Your task to perform on an android device: Open Google Chrome and click the shortcut for Amazon.com Image 0: 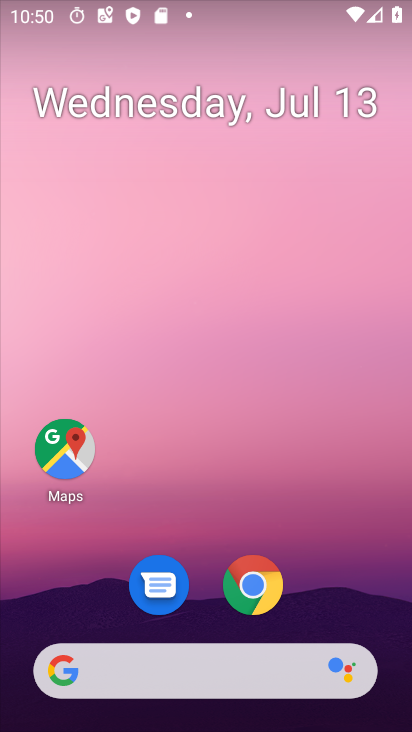
Step 0: drag from (261, 498) to (299, 93)
Your task to perform on an android device: Open Google Chrome and click the shortcut for Amazon.com Image 1: 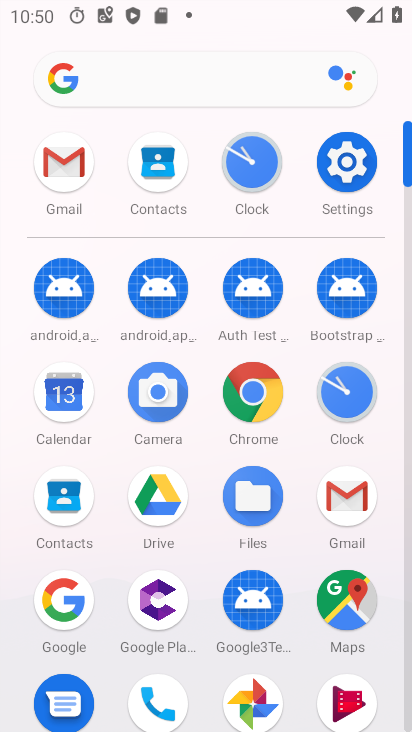
Step 1: click (245, 408)
Your task to perform on an android device: Open Google Chrome and click the shortcut for Amazon.com Image 2: 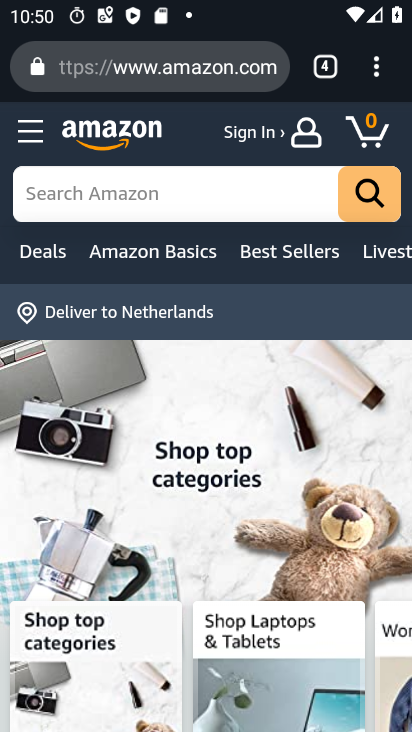
Step 2: click (377, 78)
Your task to perform on an android device: Open Google Chrome and click the shortcut for Amazon.com Image 3: 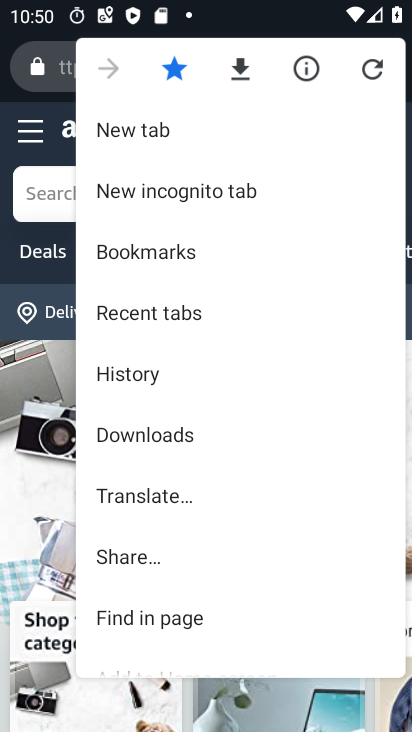
Step 3: click (212, 122)
Your task to perform on an android device: Open Google Chrome and click the shortcut for Amazon.com Image 4: 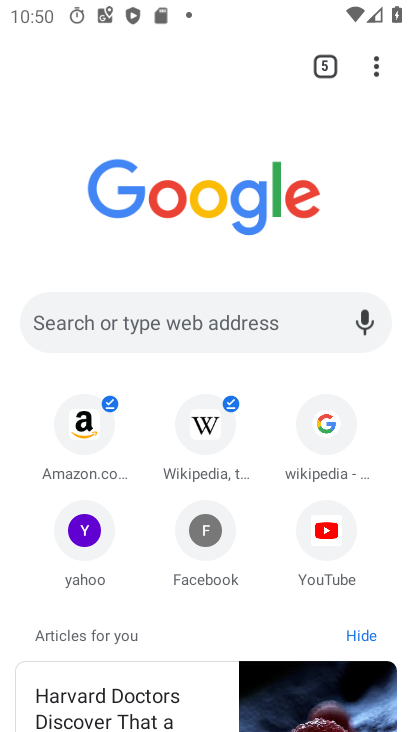
Step 4: click (90, 424)
Your task to perform on an android device: Open Google Chrome and click the shortcut for Amazon.com Image 5: 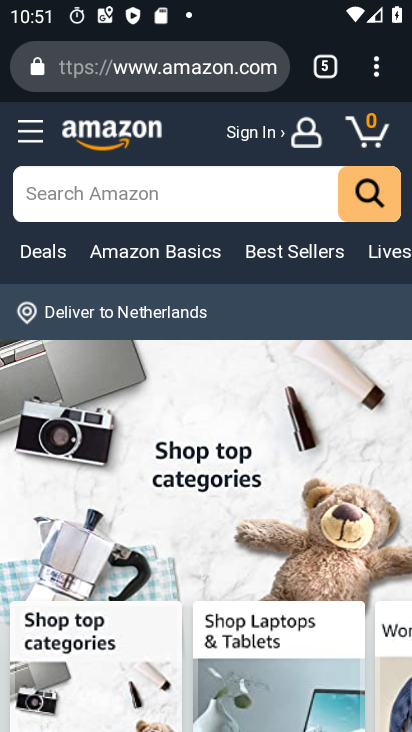
Step 5: task complete